Your task to perform on an android device: search for starred emails in the gmail app Image 0: 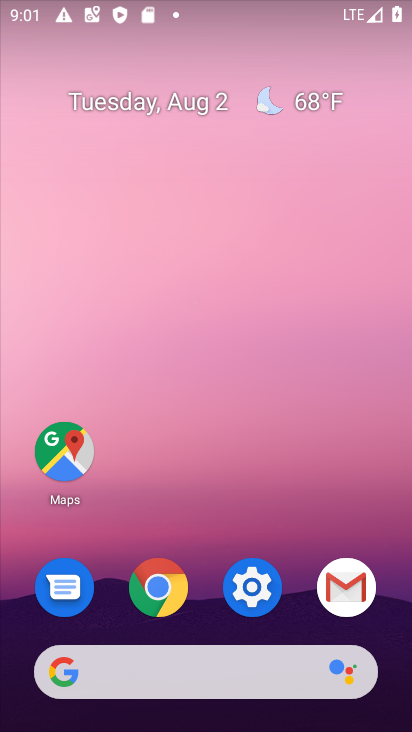
Step 0: click (329, 599)
Your task to perform on an android device: search for starred emails in the gmail app Image 1: 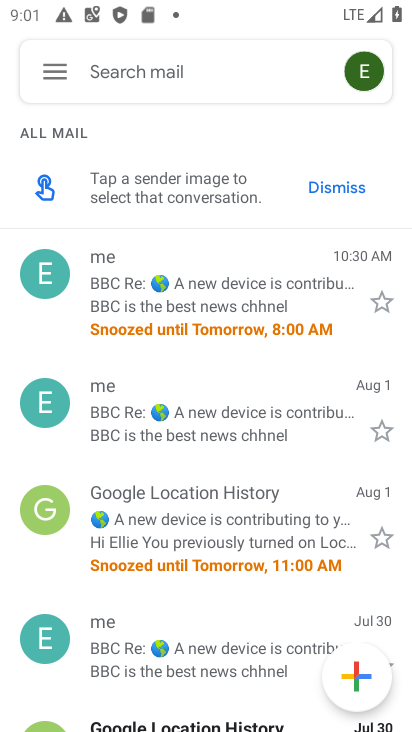
Step 1: click (59, 68)
Your task to perform on an android device: search for starred emails in the gmail app Image 2: 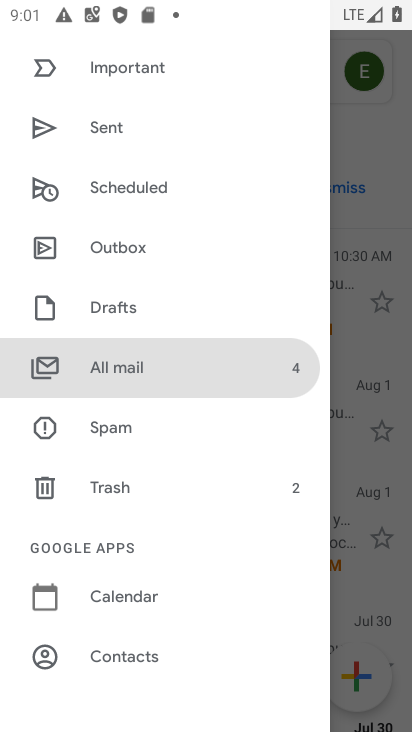
Step 2: drag from (139, 246) to (177, 312)
Your task to perform on an android device: search for starred emails in the gmail app Image 3: 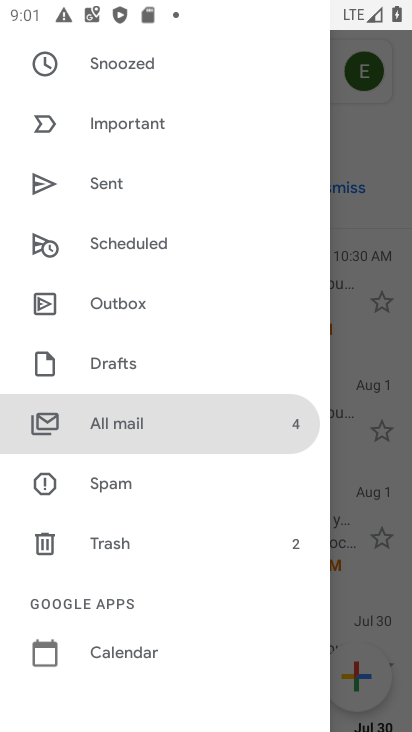
Step 3: drag from (112, 124) to (162, 284)
Your task to perform on an android device: search for starred emails in the gmail app Image 4: 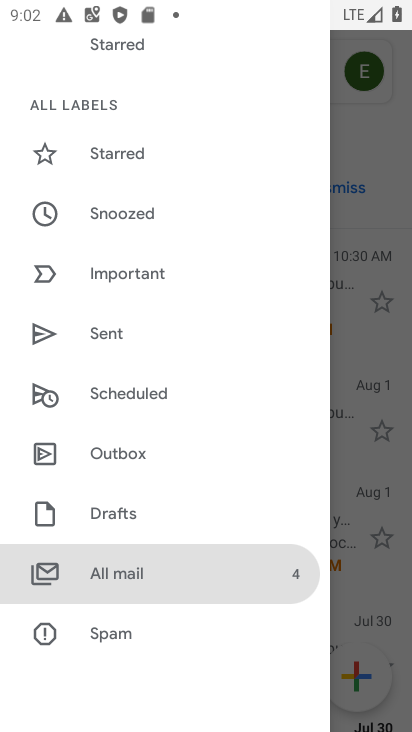
Step 4: click (119, 150)
Your task to perform on an android device: search for starred emails in the gmail app Image 5: 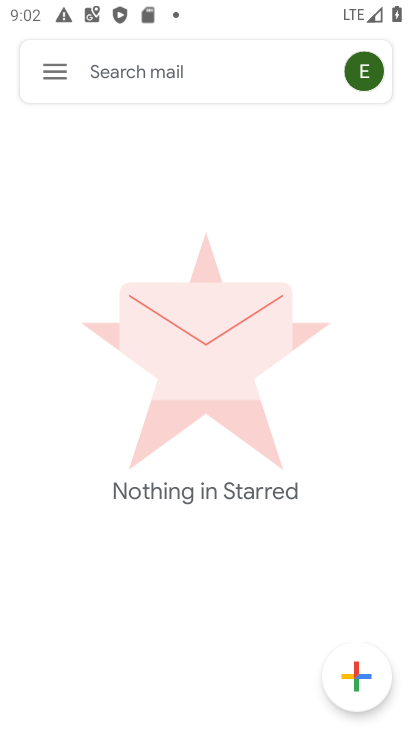
Step 5: task complete